Your task to perform on an android device: check the backup settings in the google photos Image 0: 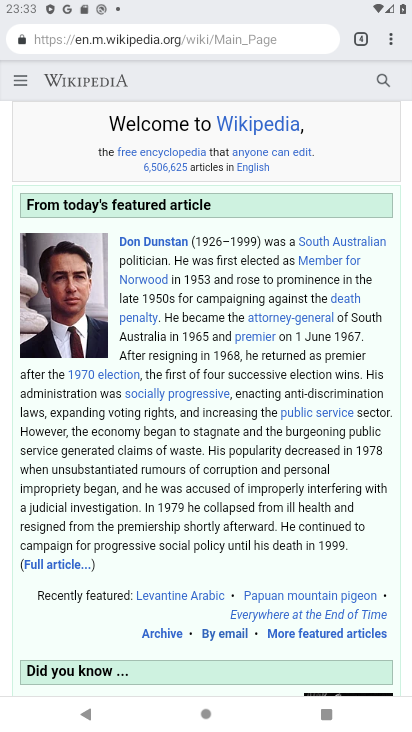
Step 0: press home button
Your task to perform on an android device: check the backup settings in the google photos Image 1: 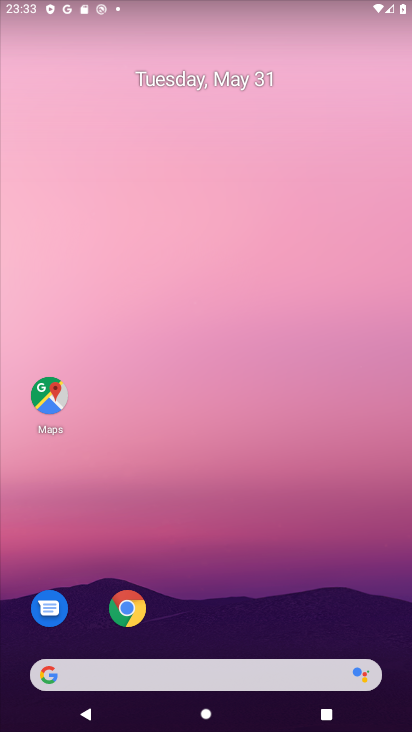
Step 1: drag from (199, 599) to (264, 48)
Your task to perform on an android device: check the backup settings in the google photos Image 2: 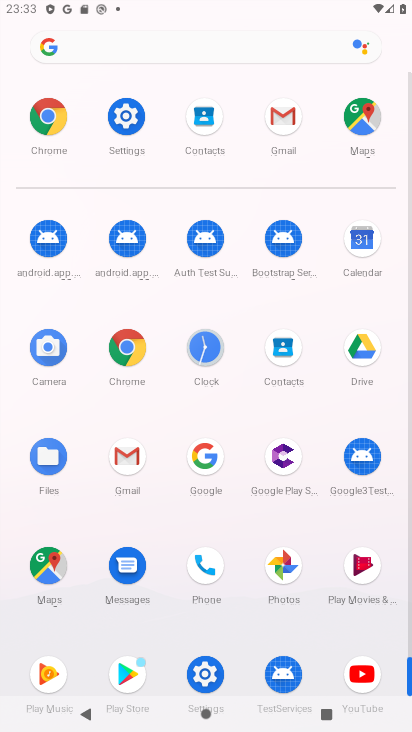
Step 2: click (284, 587)
Your task to perform on an android device: check the backup settings in the google photos Image 3: 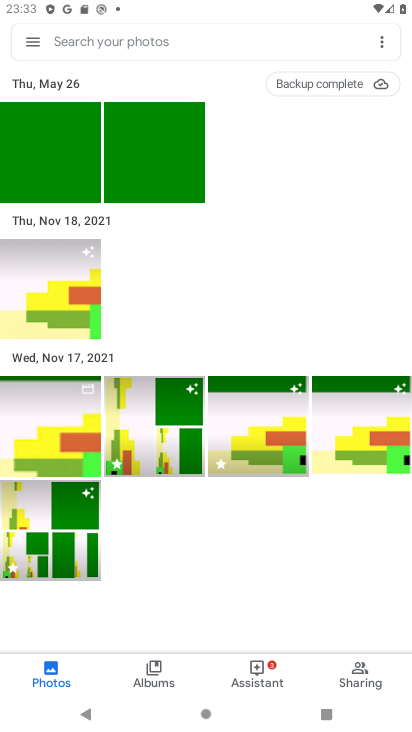
Step 3: click (32, 28)
Your task to perform on an android device: check the backup settings in the google photos Image 4: 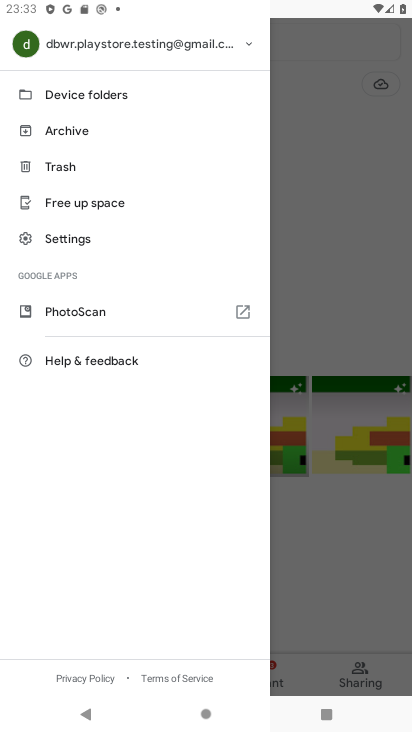
Step 4: click (60, 229)
Your task to perform on an android device: check the backup settings in the google photos Image 5: 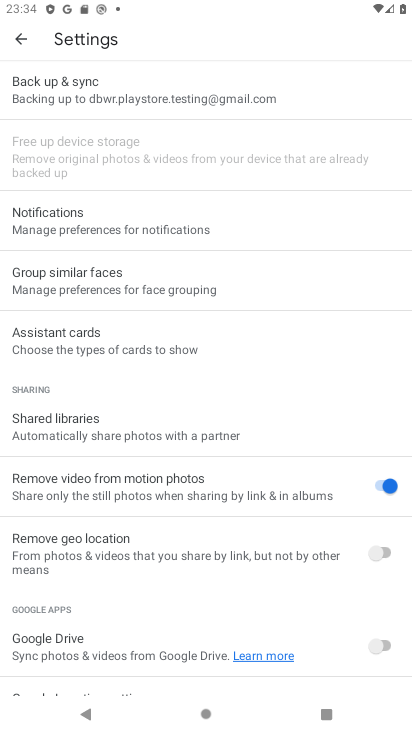
Step 5: click (113, 101)
Your task to perform on an android device: check the backup settings in the google photos Image 6: 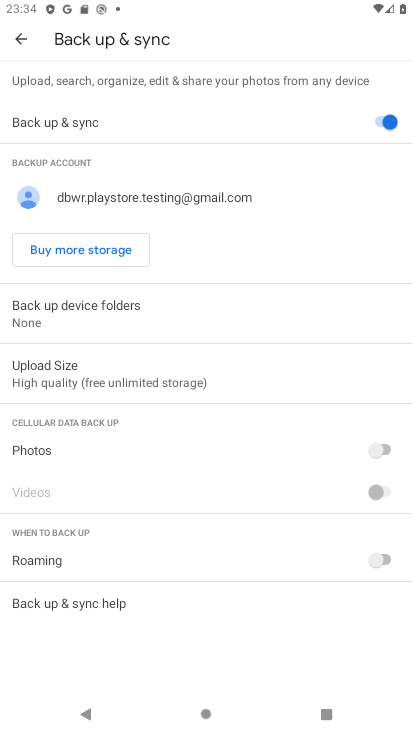
Step 6: task complete